Your task to perform on an android device: Go to battery settings Image 0: 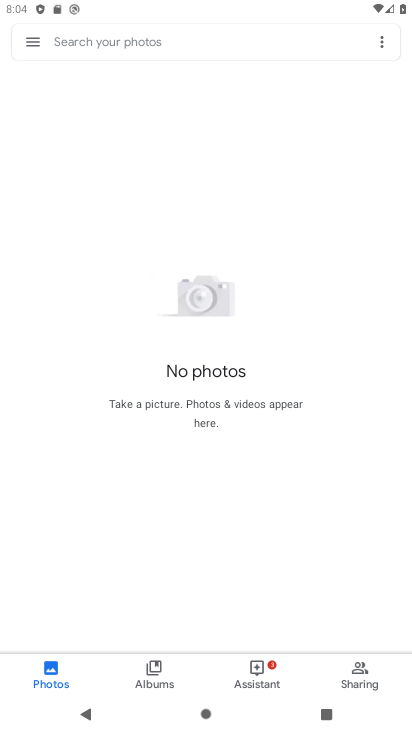
Step 0: press home button
Your task to perform on an android device: Go to battery settings Image 1: 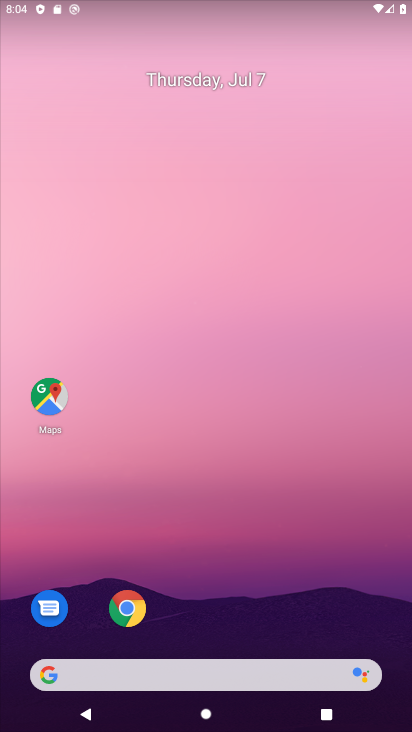
Step 1: drag from (360, 604) to (376, 97)
Your task to perform on an android device: Go to battery settings Image 2: 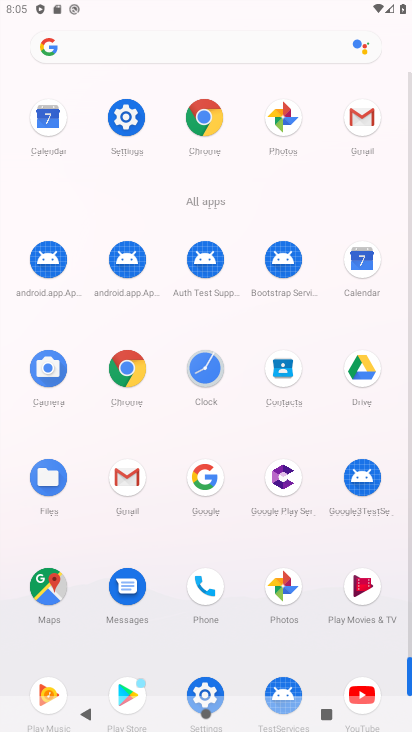
Step 2: click (128, 122)
Your task to perform on an android device: Go to battery settings Image 3: 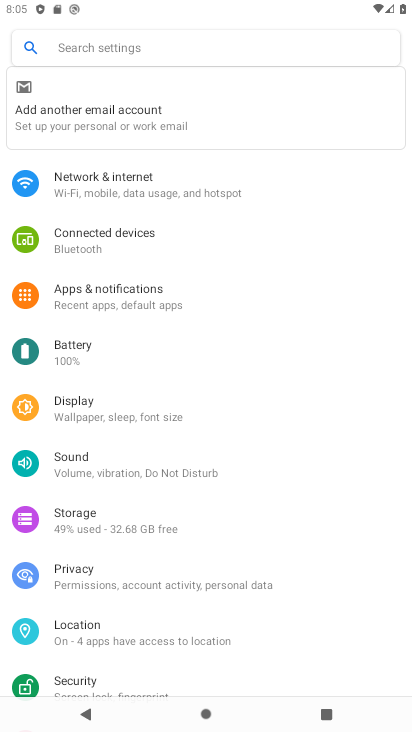
Step 3: drag from (328, 389) to (337, 319)
Your task to perform on an android device: Go to battery settings Image 4: 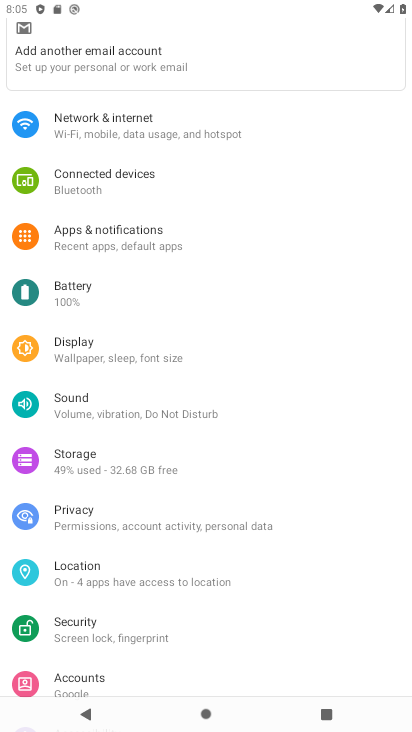
Step 4: drag from (339, 397) to (344, 309)
Your task to perform on an android device: Go to battery settings Image 5: 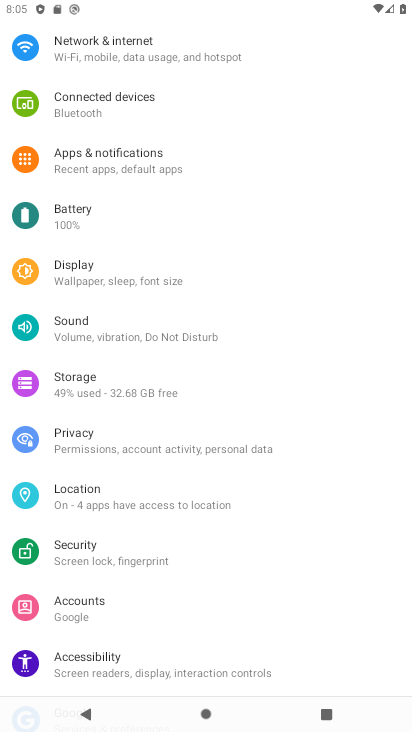
Step 5: drag from (356, 433) to (361, 329)
Your task to perform on an android device: Go to battery settings Image 6: 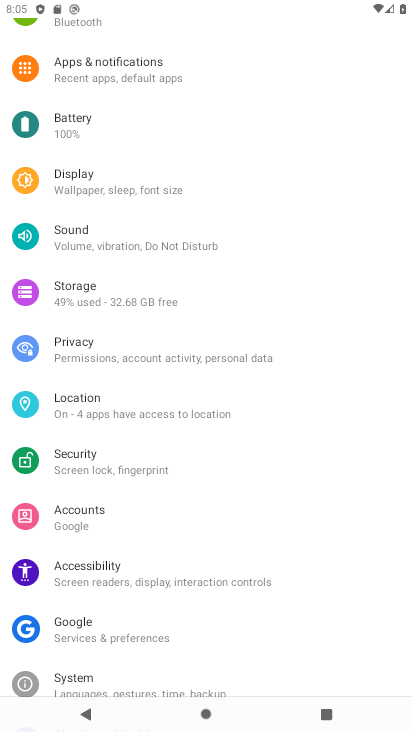
Step 6: drag from (336, 459) to (335, 350)
Your task to perform on an android device: Go to battery settings Image 7: 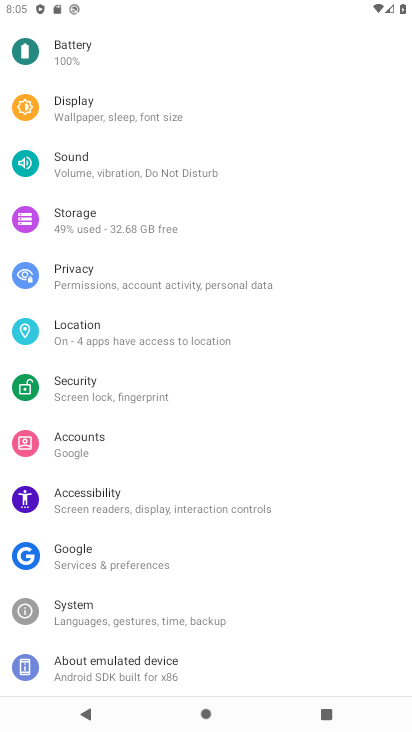
Step 7: drag from (340, 461) to (342, 328)
Your task to perform on an android device: Go to battery settings Image 8: 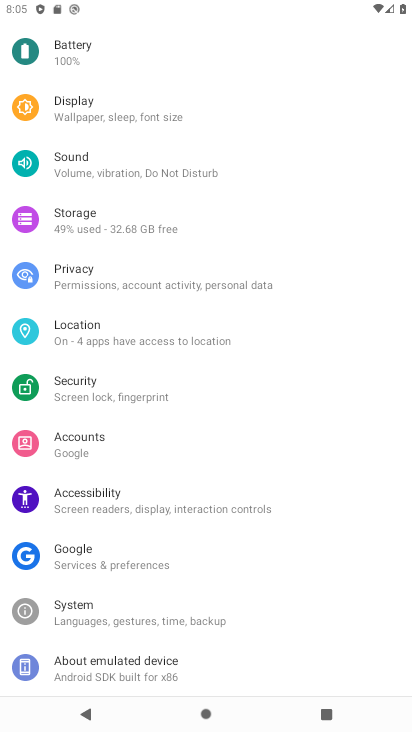
Step 8: drag from (347, 292) to (347, 371)
Your task to perform on an android device: Go to battery settings Image 9: 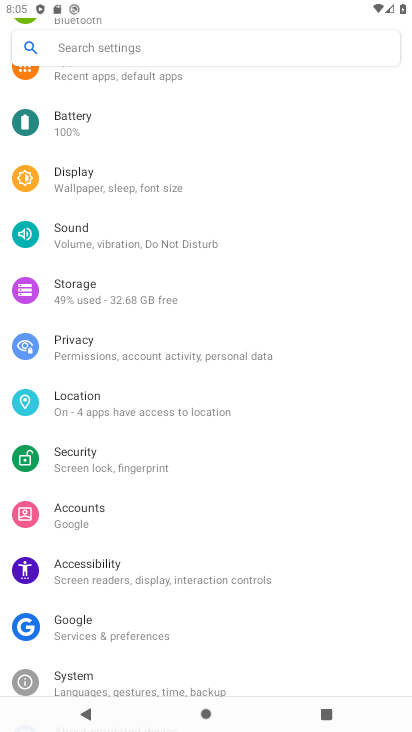
Step 9: drag from (342, 309) to (344, 383)
Your task to perform on an android device: Go to battery settings Image 10: 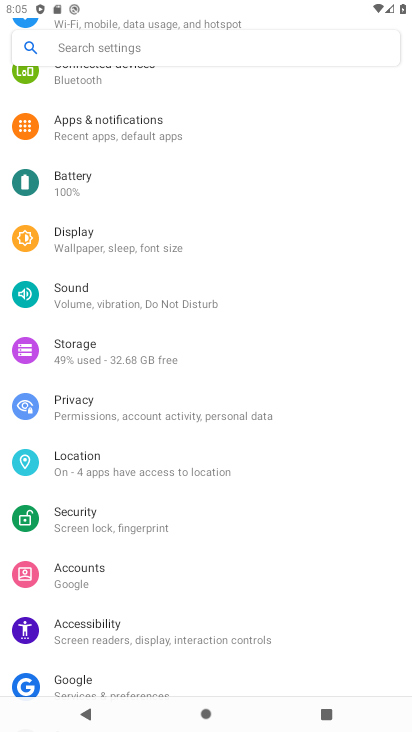
Step 10: drag from (346, 314) to (351, 417)
Your task to perform on an android device: Go to battery settings Image 11: 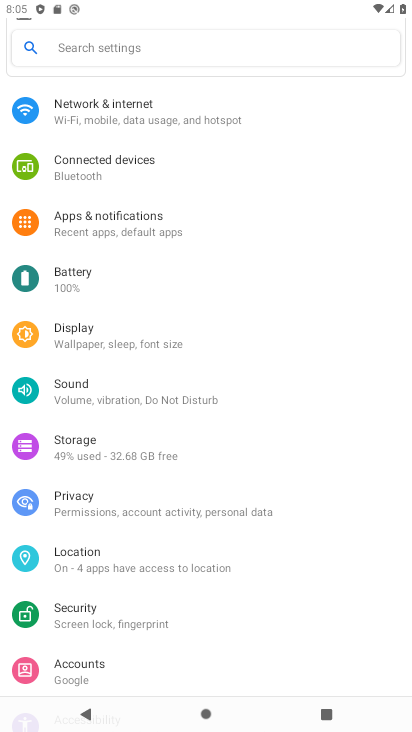
Step 11: drag from (344, 287) to (346, 380)
Your task to perform on an android device: Go to battery settings Image 12: 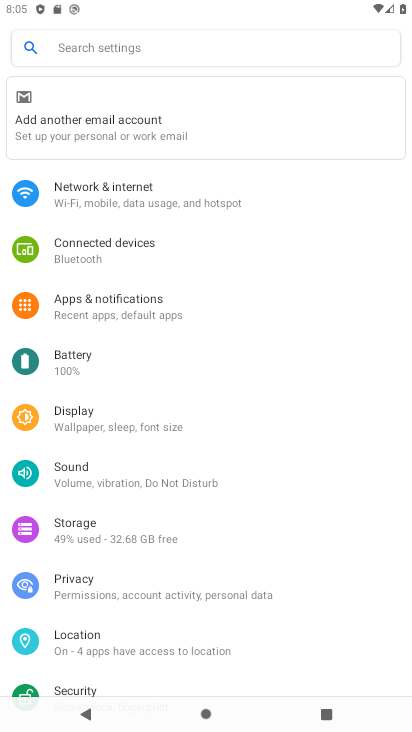
Step 12: drag from (332, 304) to (332, 409)
Your task to perform on an android device: Go to battery settings Image 13: 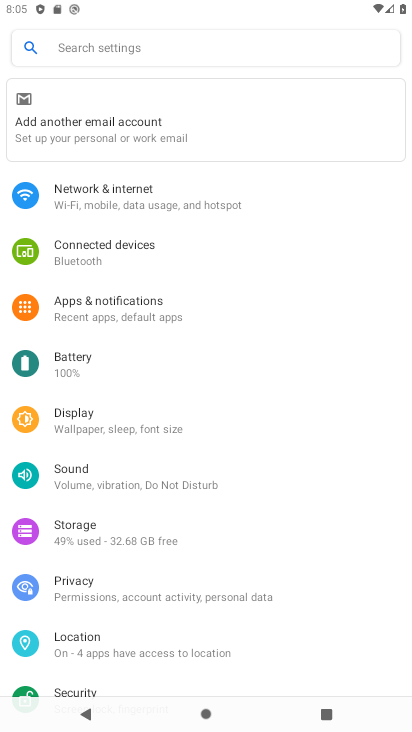
Step 13: click (132, 373)
Your task to perform on an android device: Go to battery settings Image 14: 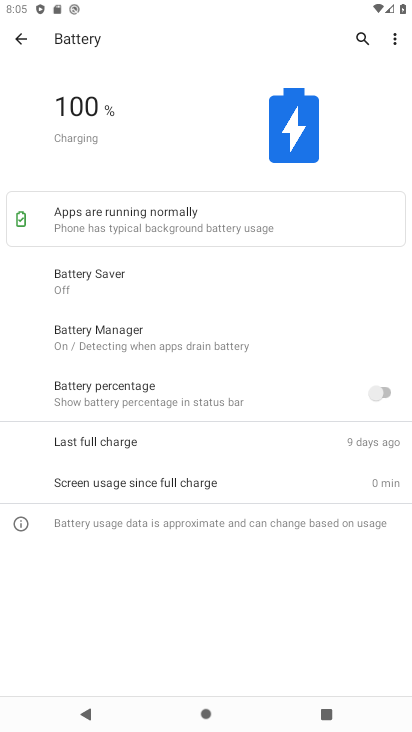
Step 14: task complete